Your task to perform on an android device: Open calendar and show me the third week of next month Image 0: 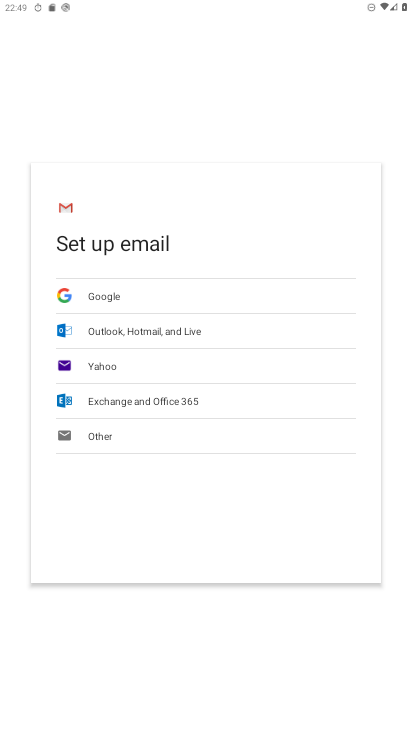
Step 0: press home button
Your task to perform on an android device: Open calendar and show me the third week of next month Image 1: 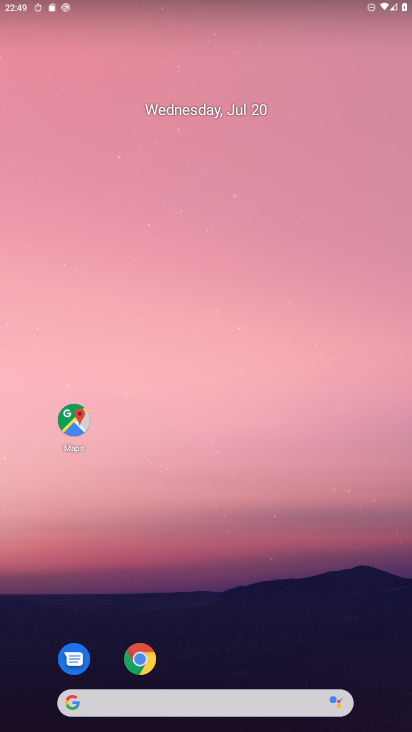
Step 1: drag from (204, 608) to (233, 134)
Your task to perform on an android device: Open calendar and show me the third week of next month Image 2: 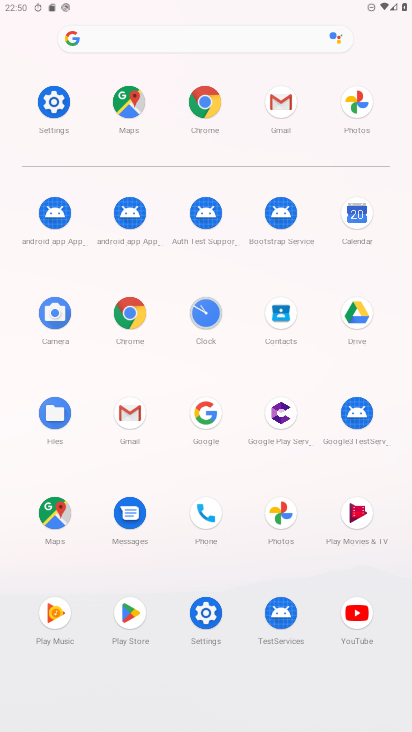
Step 2: click (356, 213)
Your task to perform on an android device: Open calendar and show me the third week of next month Image 3: 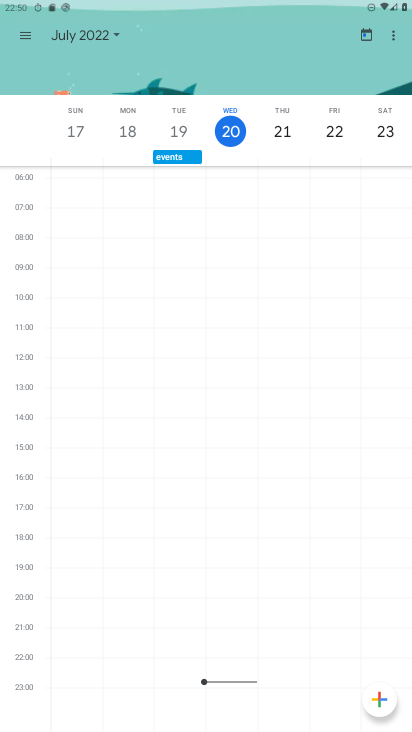
Step 3: click (105, 35)
Your task to perform on an android device: Open calendar and show me the third week of next month Image 4: 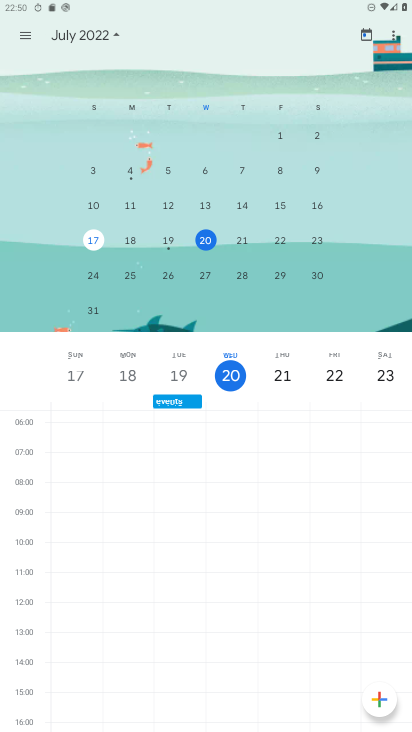
Step 4: drag from (318, 223) to (85, 167)
Your task to perform on an android device: Open calendar and show me the third week of next month Image 5: 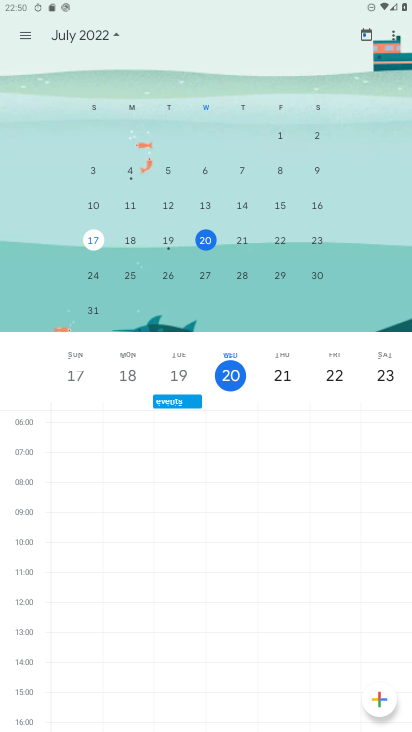
Step 5: drag from (361, 187) to (22, 197)
Your task to perform on an android device: Open calendar and show me the third week of next month Image 6: 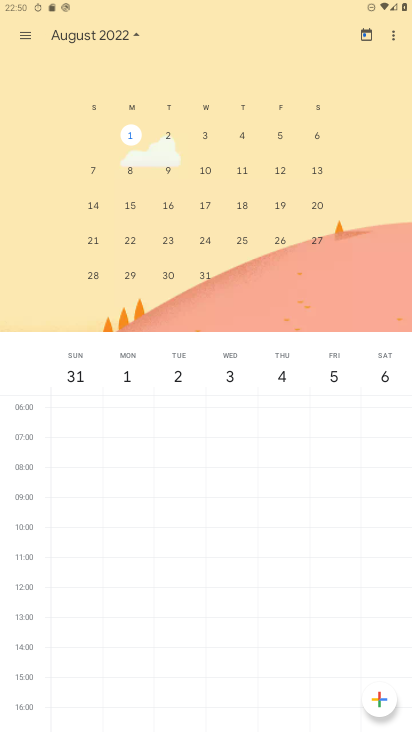
Step 6: click (175, 207)
Your task to perform on an android device: Open calendar and show me the third week of next month Image 7: 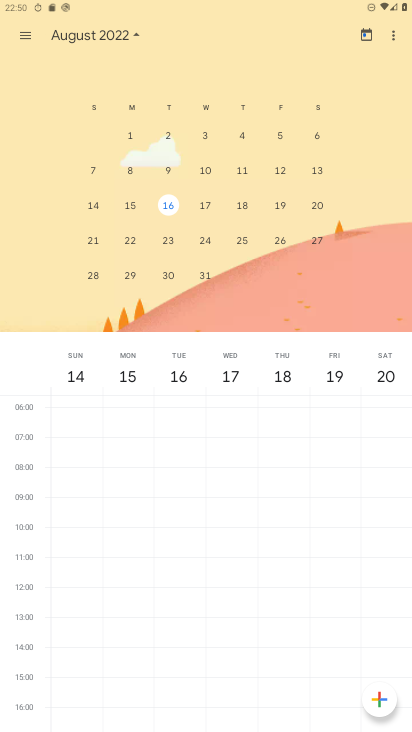
Step 7: task complete